Your task to perform on an android device: When is my next appointment? Image 0: 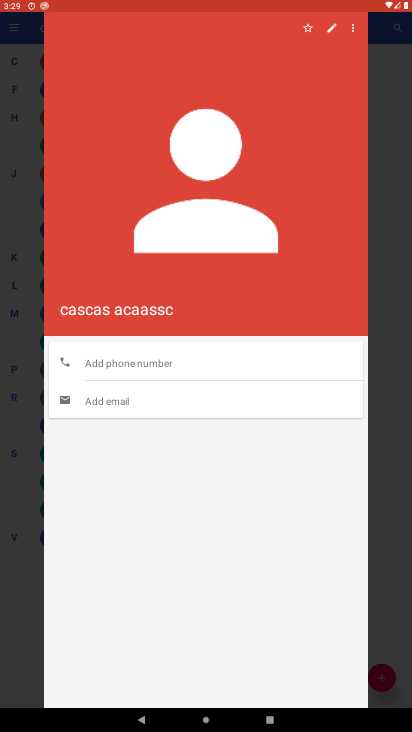
Step 0: press home button
Your task to perform on an android device: When is my next appointment? Image 1: 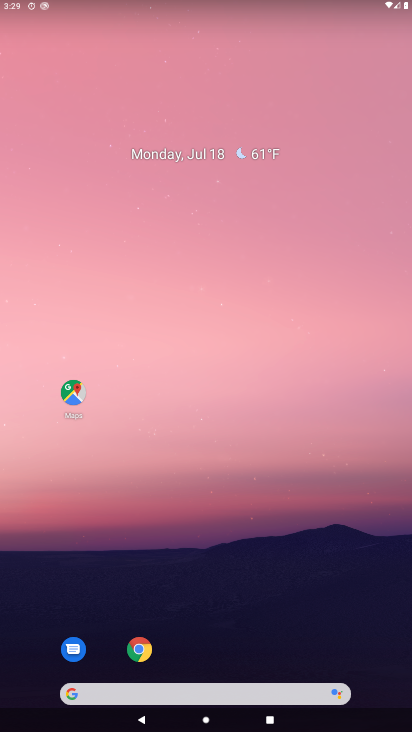
Step 1: drag from (92, 531) to (245, 198)
Your task to perform on an android device: When is my next appointment? Image 2: 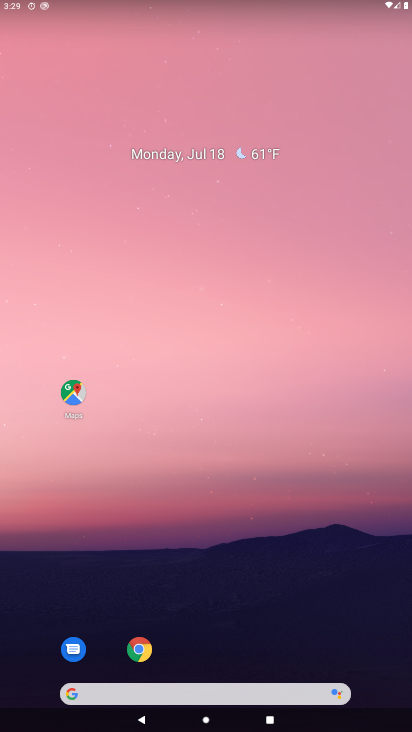
Step 2: drag from (12, 702) to (186, 227)
Your task to perform on an android device: When is my next appointment? Image 3: 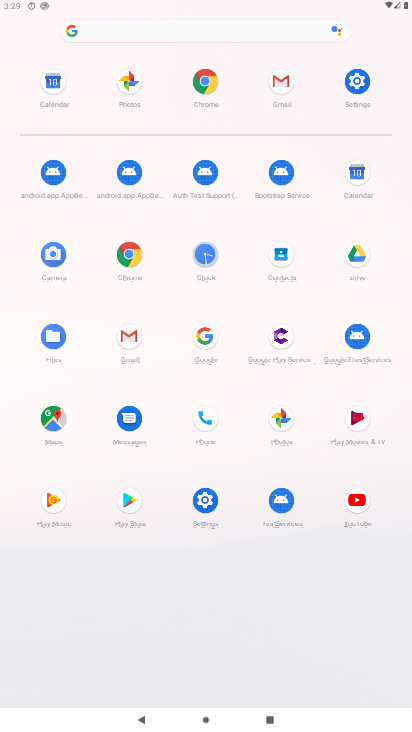
Step 3: click (353, 193)
Your task to perform on an android device: When is my next appointment? Image 4: 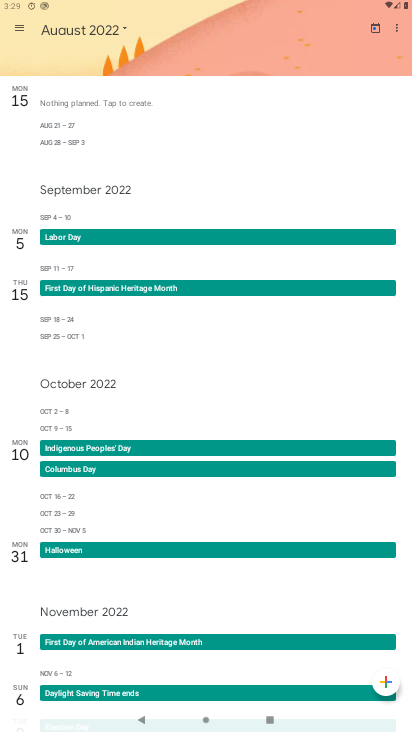
Step 4: click (93, 41)
Your task to perform on an android device: When is my next appointment? Image 5: 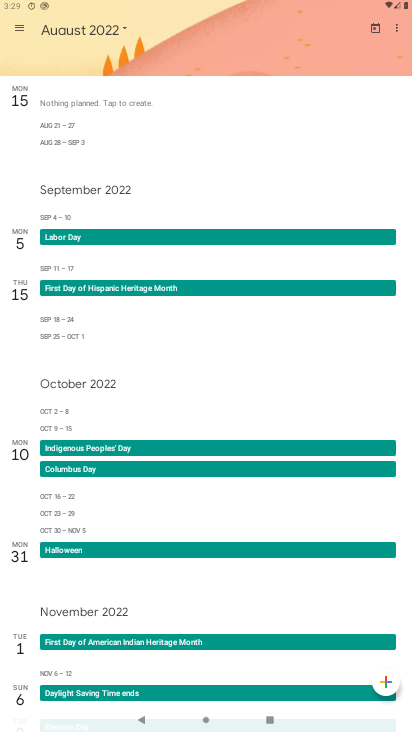
Step 5: click (93, 28)
Your task to perform on an android device: When is my next appointment? Image 6: 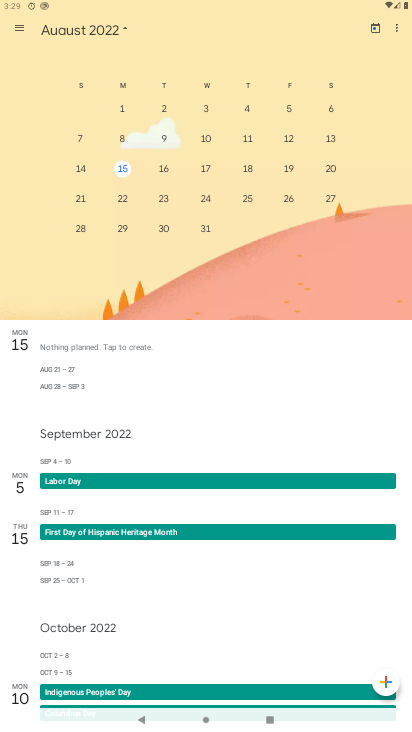
Step 6: task complete